Your task to perform on an android device: What's on my calendar today? Image 0: 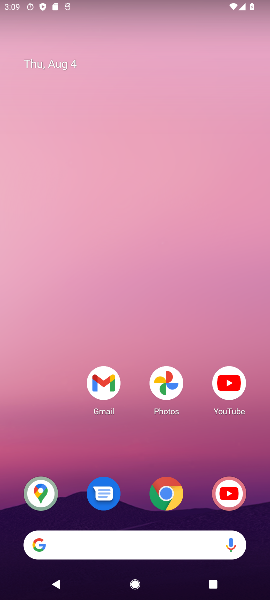
Step 0: drag from (30, 575) to (110, 190)
Your task to perform on an android device: What's on my calendar today? Image 1: 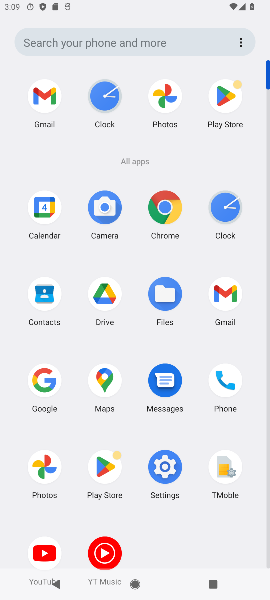
Step 1: click (45, 220)
Your task to perform on an android device: What's on my calendar today? Image 2: 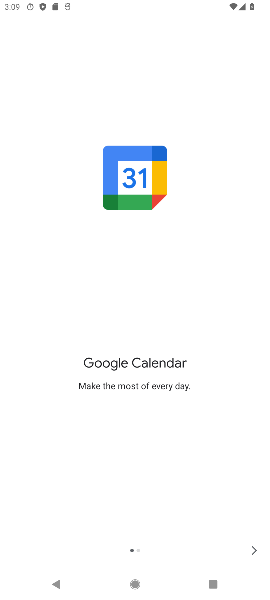
Step 2: click (253, 548)
Your task to perform on an android device: What's on my calendar today? Image 3: 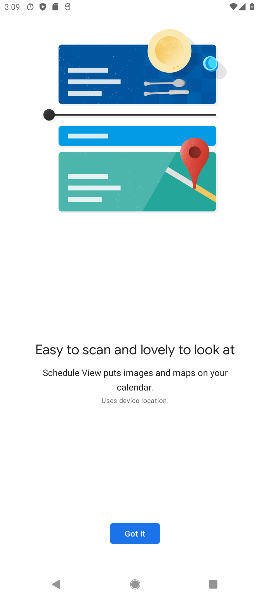
Step 3: click (120, 523)
Your task to perform on an android device: What's on my calendar today? Image 4: 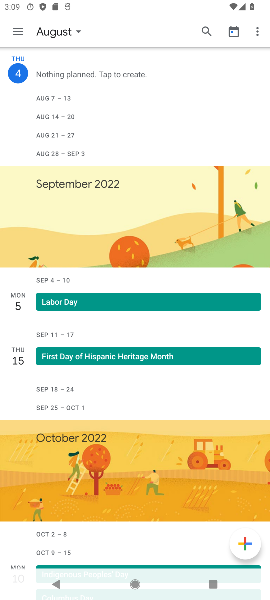
Step 4: click (69, 32)
Your task to perform on an android device: What's on my calendar today? Image 5: 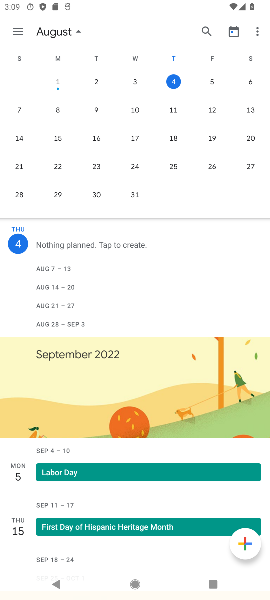
Step 5: task complete